Your task to perform on an android device: change the clock style Image 0: 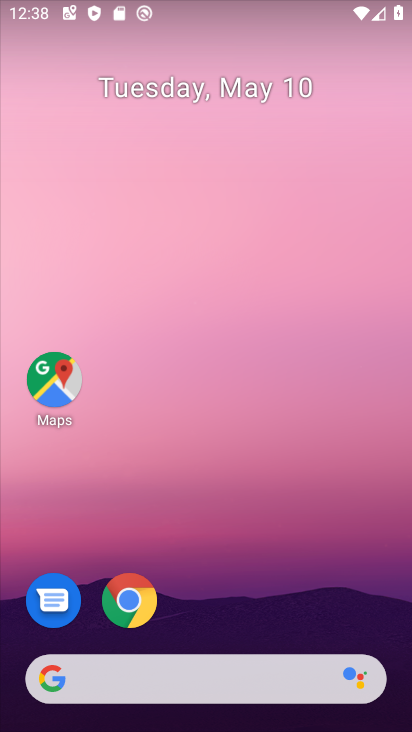
Step 0: drag from (260, 656) to (205, 134)
Your task to perform on an android device: change the clock style Image 1: 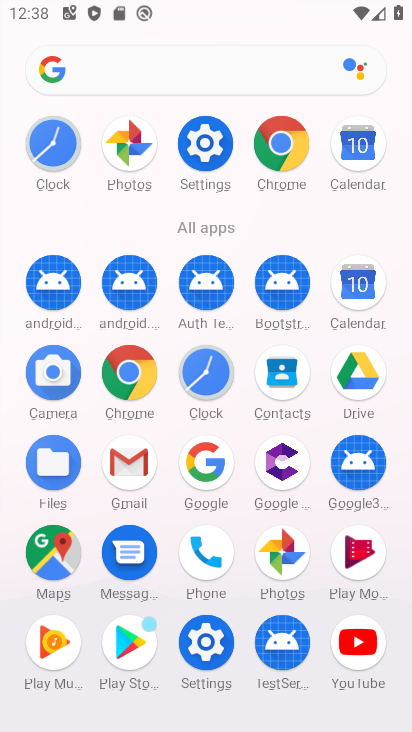
Step 1: click (214, 371)
Your task to perform on an android device: change the clock style Image 2: 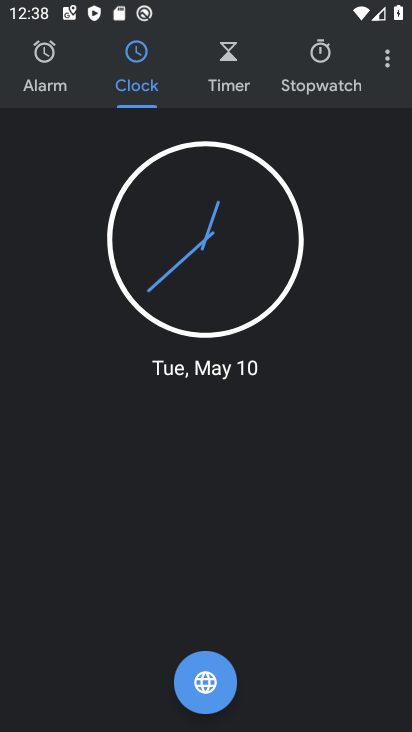
Step 2: click (384, 65)
Your task to perform on an android device: change the clock style Image 3: 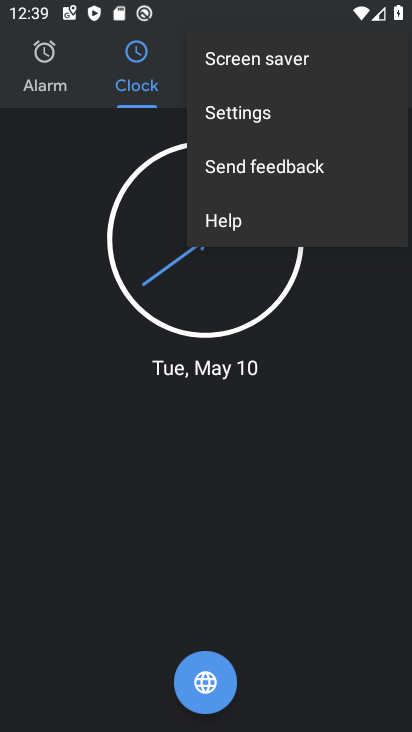
Step 3: click (268, 112)
Your task to perform on an android device: change the clock style Image 4: 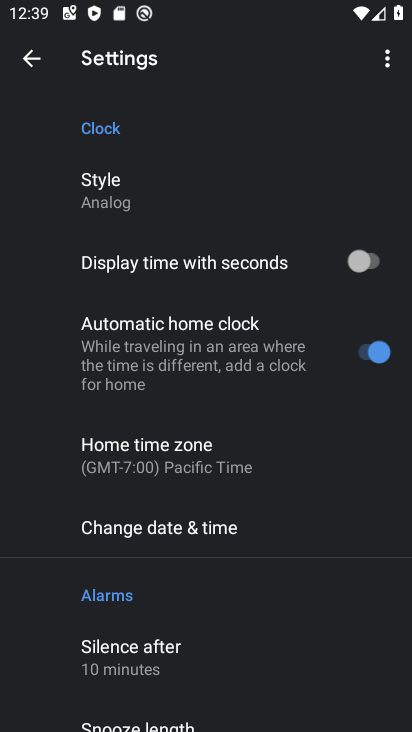
Step 4: click (111, 182)
Your task to perform on an android device: change the clock style Image 5: 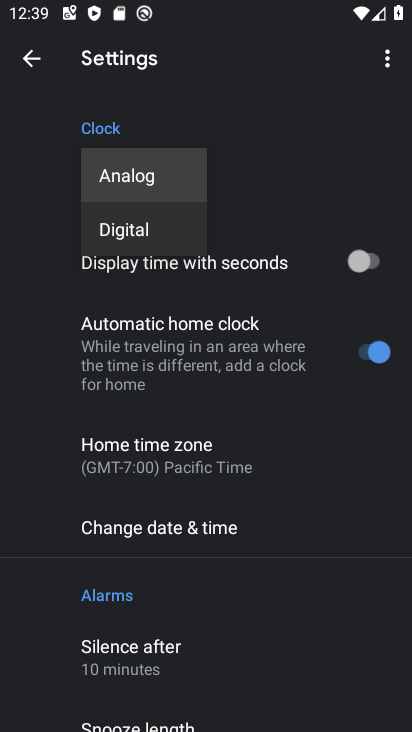
Step 5: click (147, 227)
Your task to perform on an android device: change the clock style Image 6: 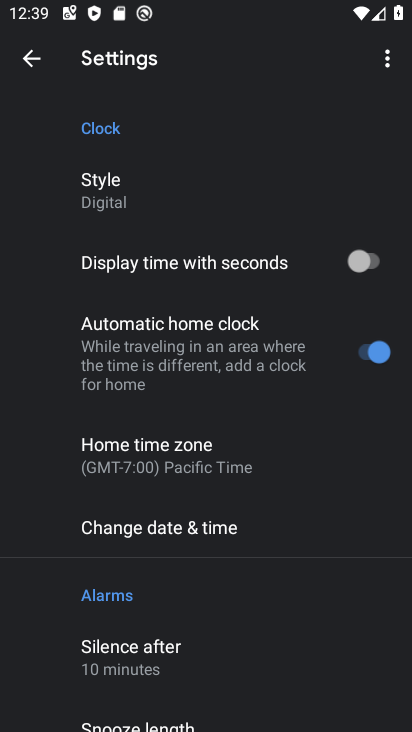
Step 6: task complete